Your task to perform on an android device: add a contact in the contacts app Image 0: 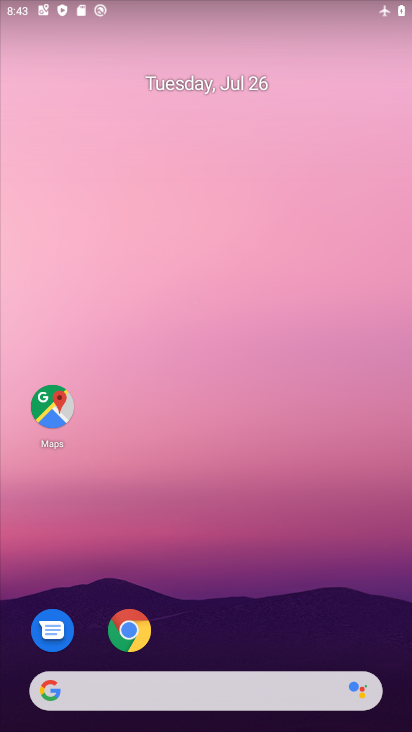
Step 0: drag from (286, 660) to (286, 190)
Your task to perform on an android device: add a contact in the contacts app Image 1: 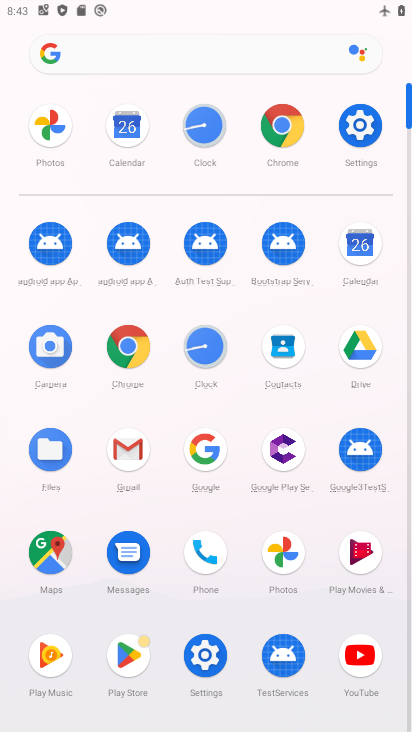
Step 1: click (281, 361)
Your task to perform on an android device: add a contact in the contacts app Image 2: 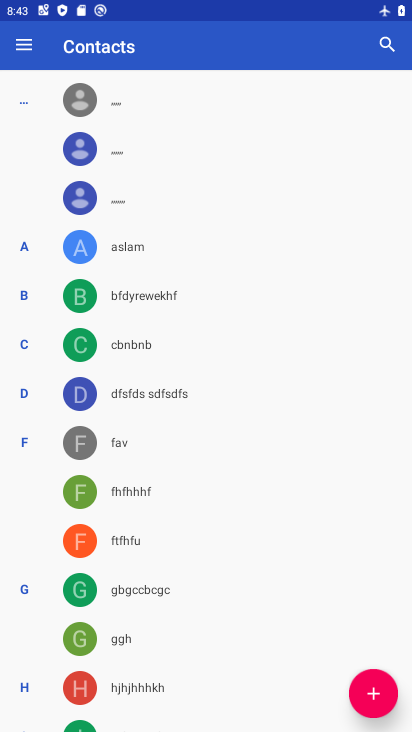
Step 2: click (358, 712)
Your task to perform on an android device: add a contact in the contacts app Image 3: 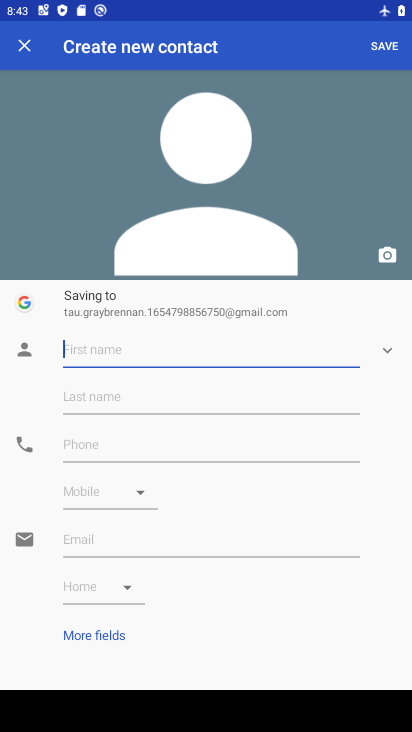
Step 3: type "sfgrdg"
Your task to perform on an android device: add a contact in the contacts app Image 4: 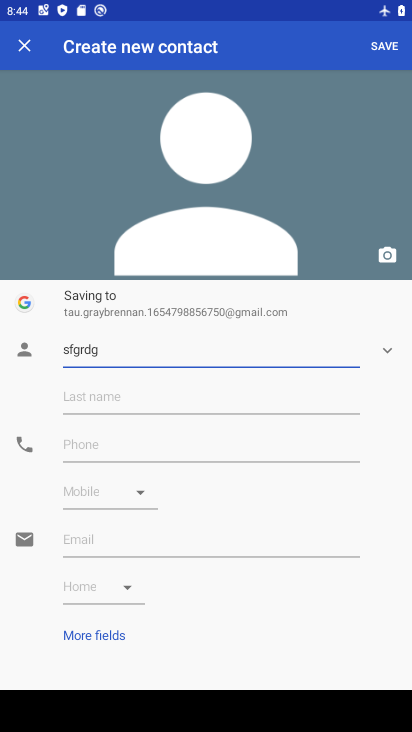
Step 4: click (268, 394)
Your task to perform on an android device: add a contact in the contacts app Image 5: 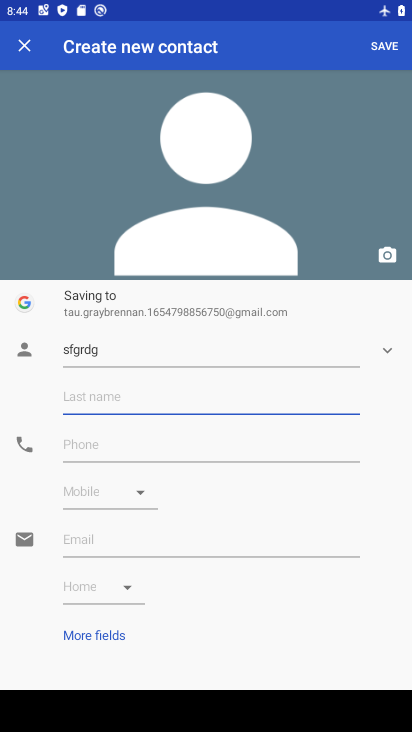
Step 5: type "fddrssa"
Your task to perform on an android device: add a contact in the contacts app Image 6: 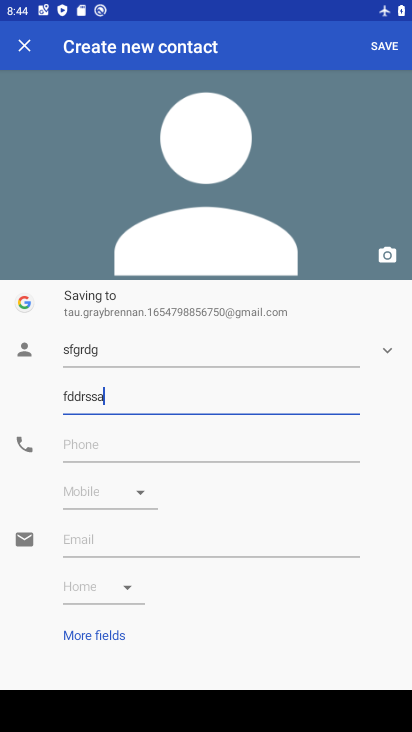
Step 6: click (250, 444)
Your task to perform on an android device: add a contact in the contacts app Image 7: 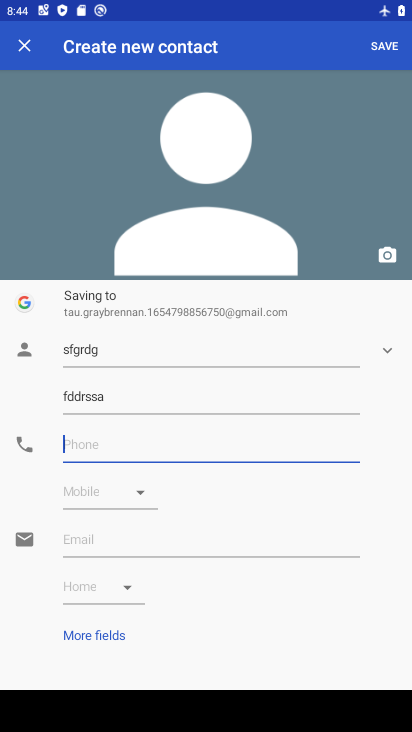
Step 7: type "3534362352"
Your task to perform on an android device: add a contact in the contacts app Image 8: 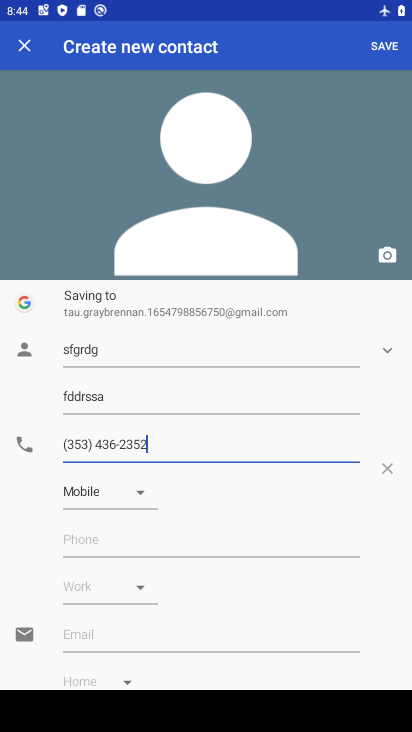
Step 8: click (366, 51)
Your task to perform on an android device: add a contact in the contacts app Image 9: 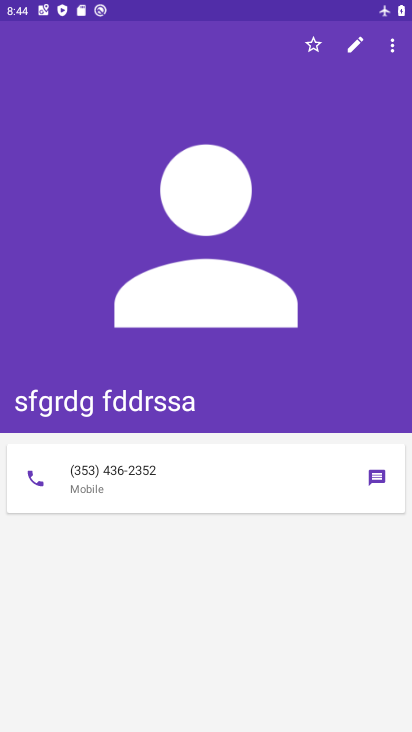
Step 9: task complete